Your task to perform on an android device: Open Google Chrome Image 0: 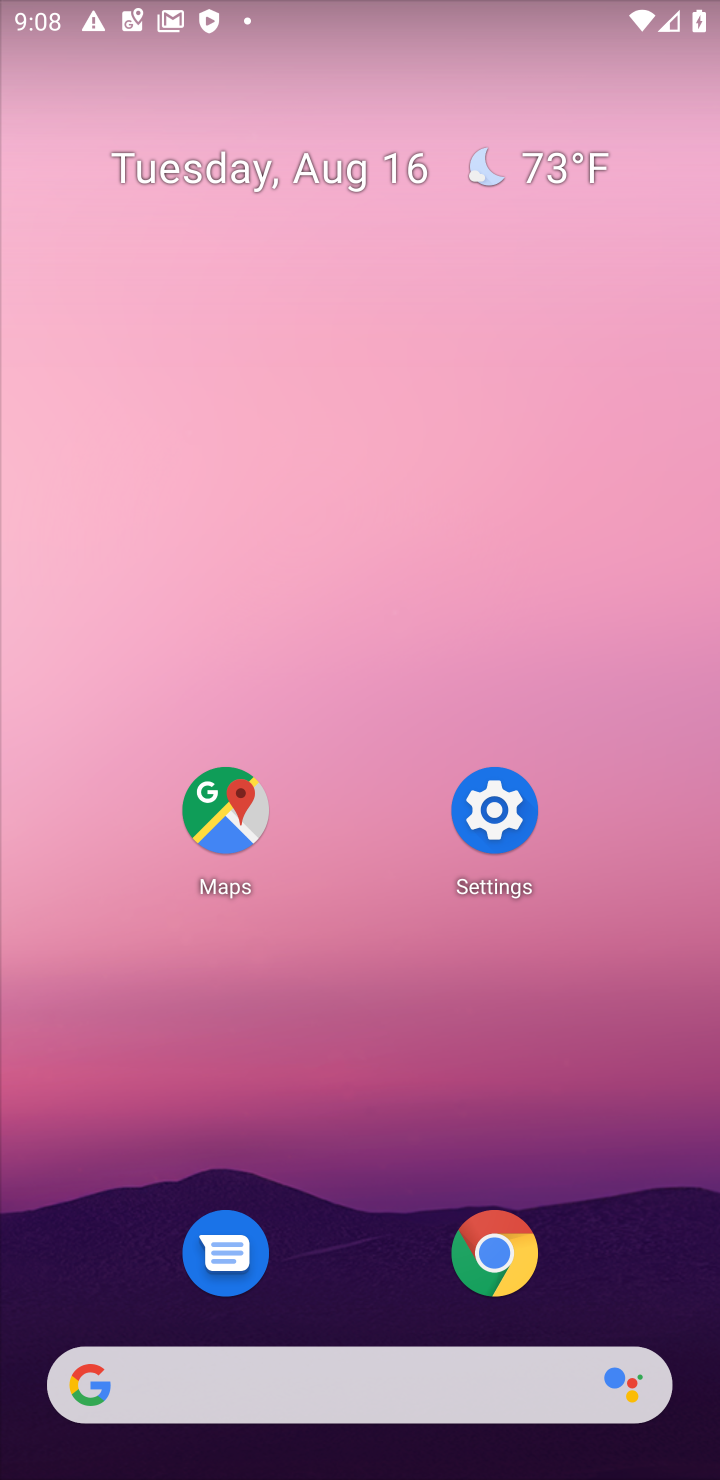
Step 0: press home button
Your task to perform on an android device: Open Google Chrome Image 1: 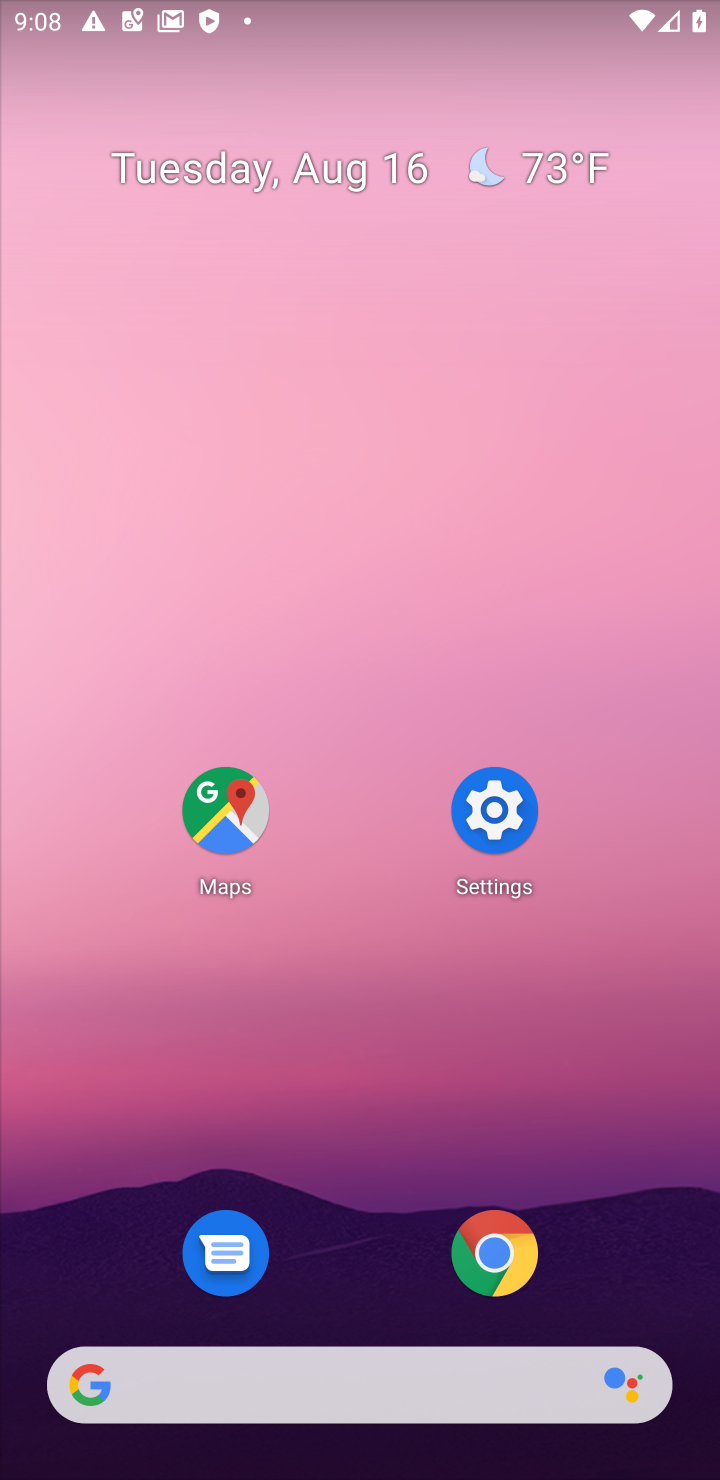
Step 1: click (479, 1259)
Your task to perform on an android device: Open Google Chrome Image 2: 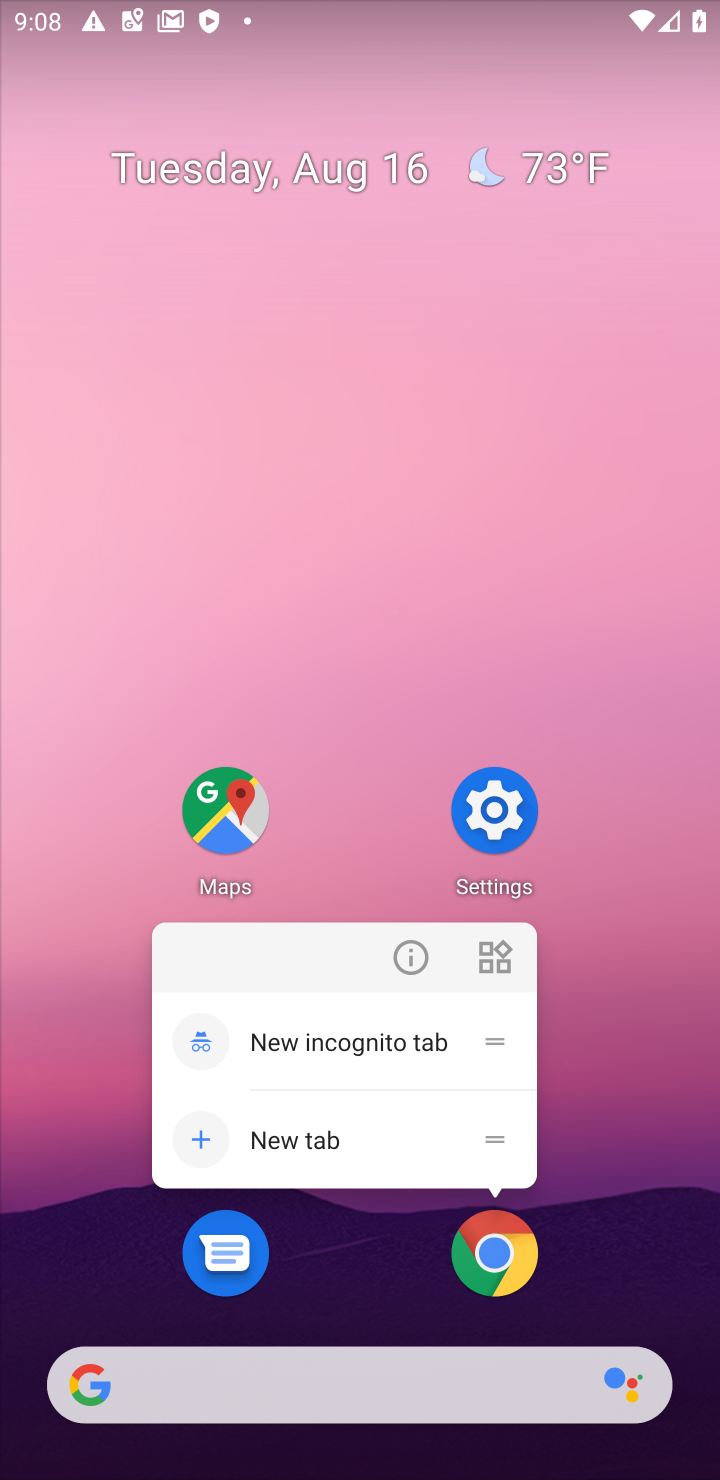
Step 2: click (482, 1255)
Your task to perform on an android device: Open Google Chrome Image 3: 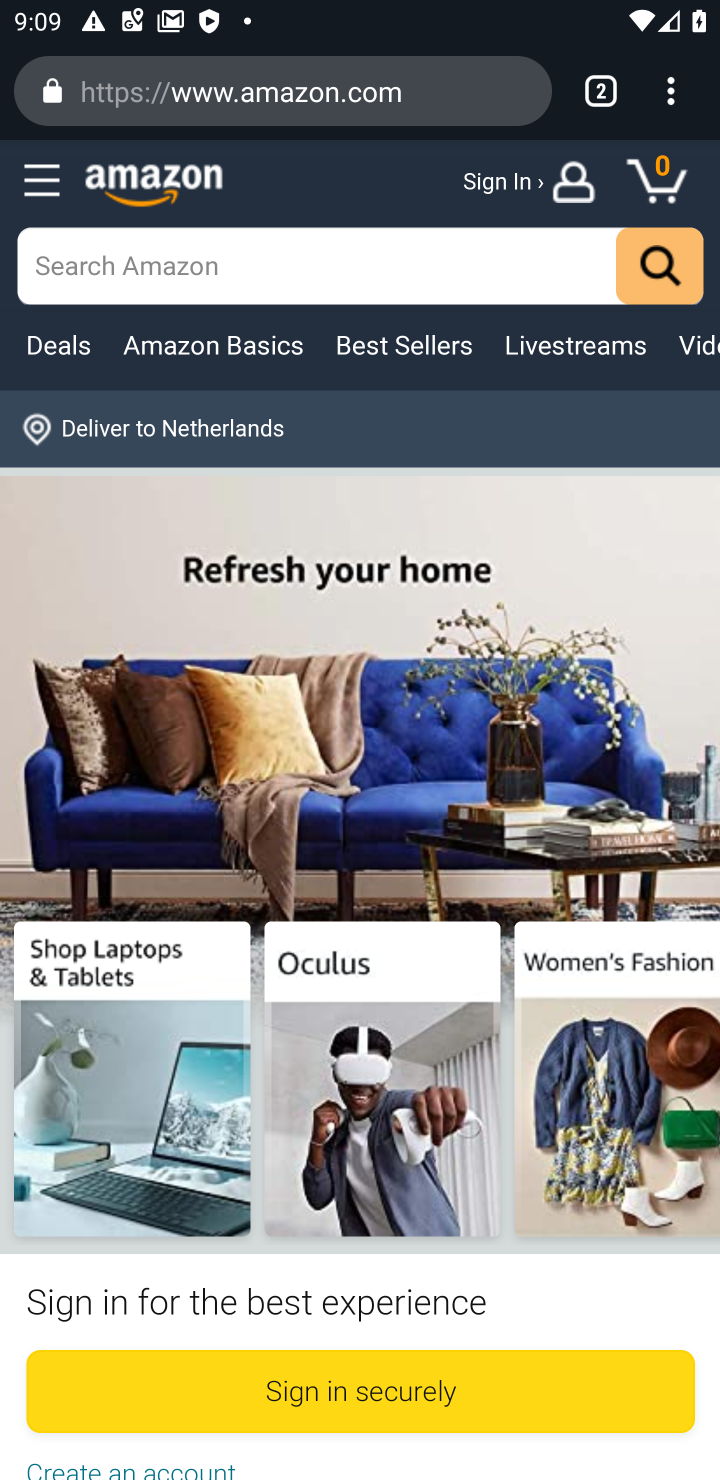
Step 3: task complete